Your task to perform on an android device: Open the calendar and show me this week's events? Image 0: 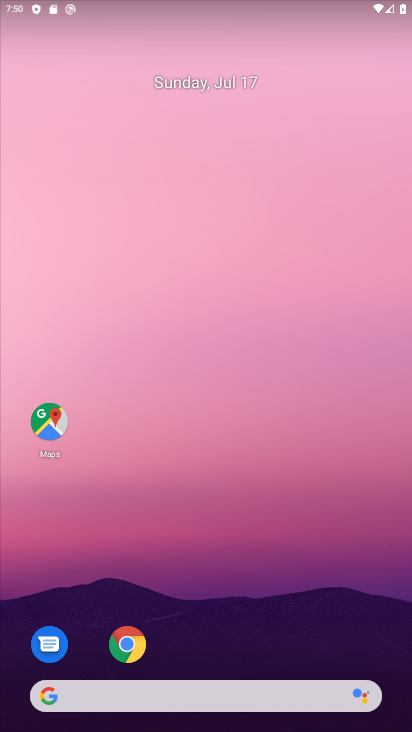
Step 0: drag from (217, 579) to (141, 91)
Your task to perform on an android device: Open the calendar and show me this week's events? Image 1: 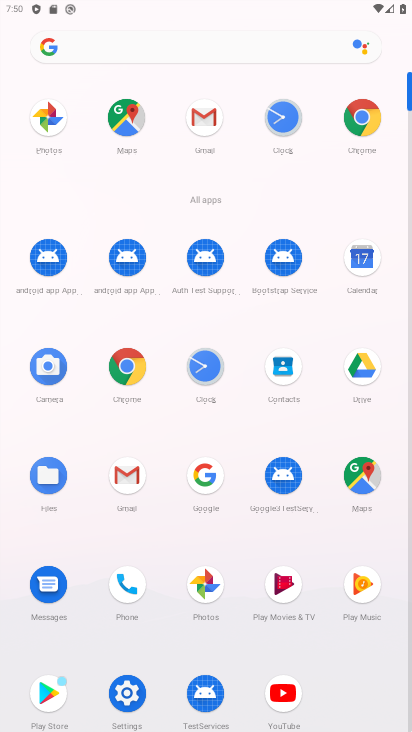
Step 1: click (356, 261)
Your task to perform on an android device: Open the calendar and show me this week's events? Image 2: 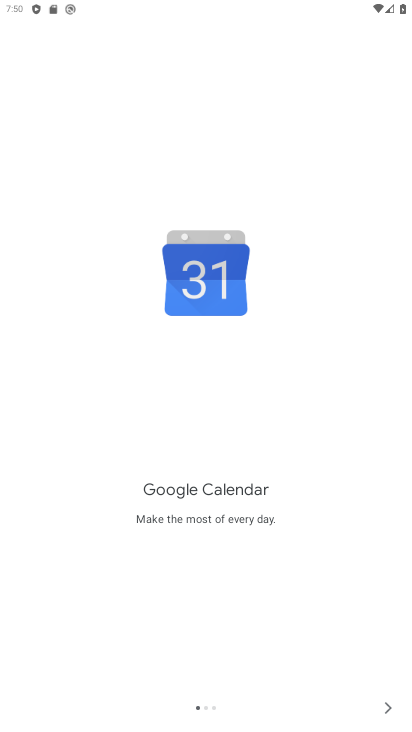
Step 2: click (392, 706)
Your task to perform on an android device: Open the calendar and show me this week's events? Image 3: 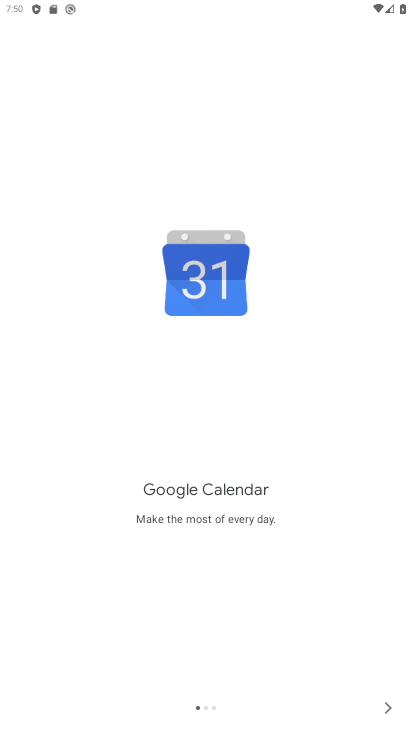
Step 3: click (392, 706)
Your task to perform on an android device: Open the calendar and show me this week's events? Image 4: 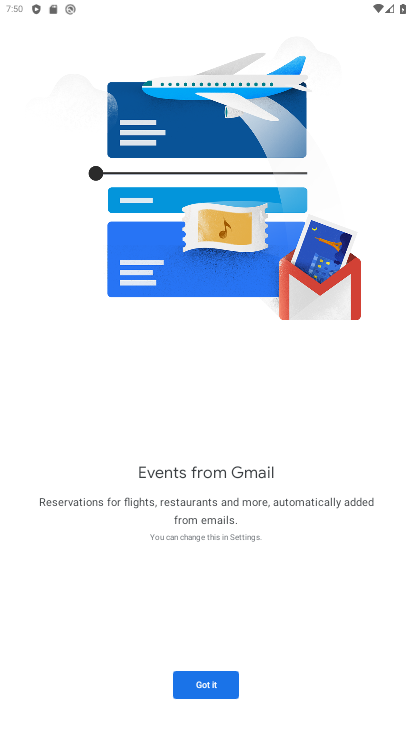
Step 4: click (221, 683)
Your task to perform on an android device: Open the calendar and show me this week's events? Image 5: 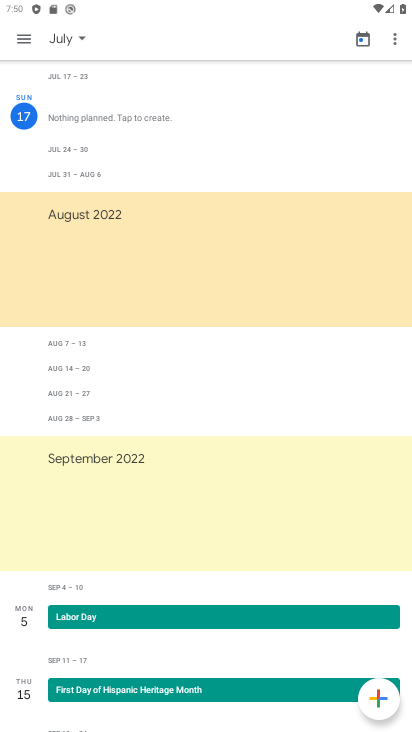
Step 5: click (80, 37)
Your task to perform on an android device: Open the calendar and show me this week's events? Image 6: 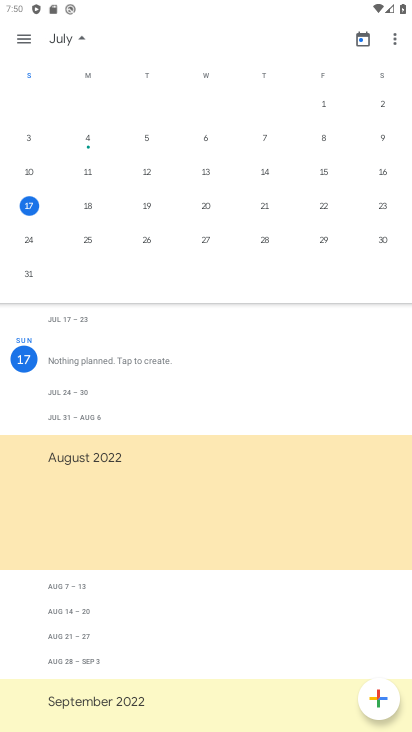
Step 6: click (23, 39)
Your task to perform on an android device: Open the calendar and show me this week's events? Image 7: 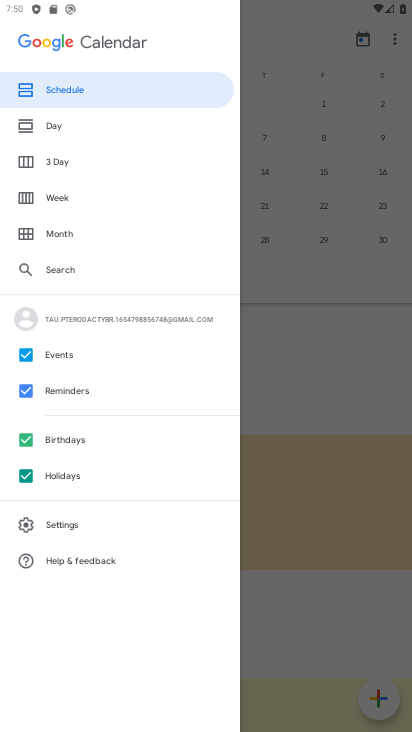
Step 7: click (68, 191)
Your task to perform on an android device: Open the calendar and show me this week's events? Image 8: 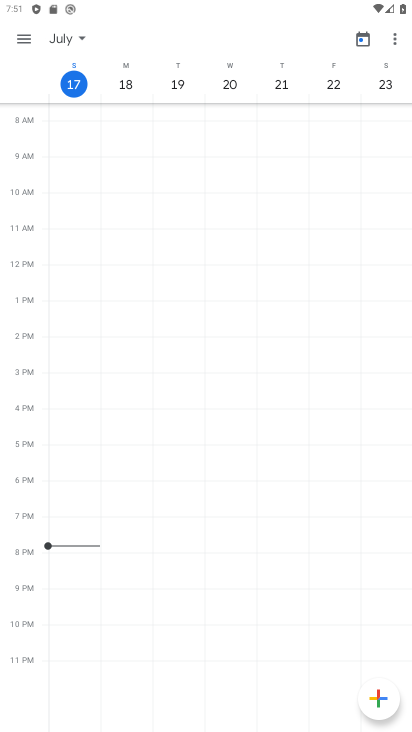
Step 8: task complete